Your task to perform on an android device: uninstall "Flipkart Online Shopping App" Image 0: 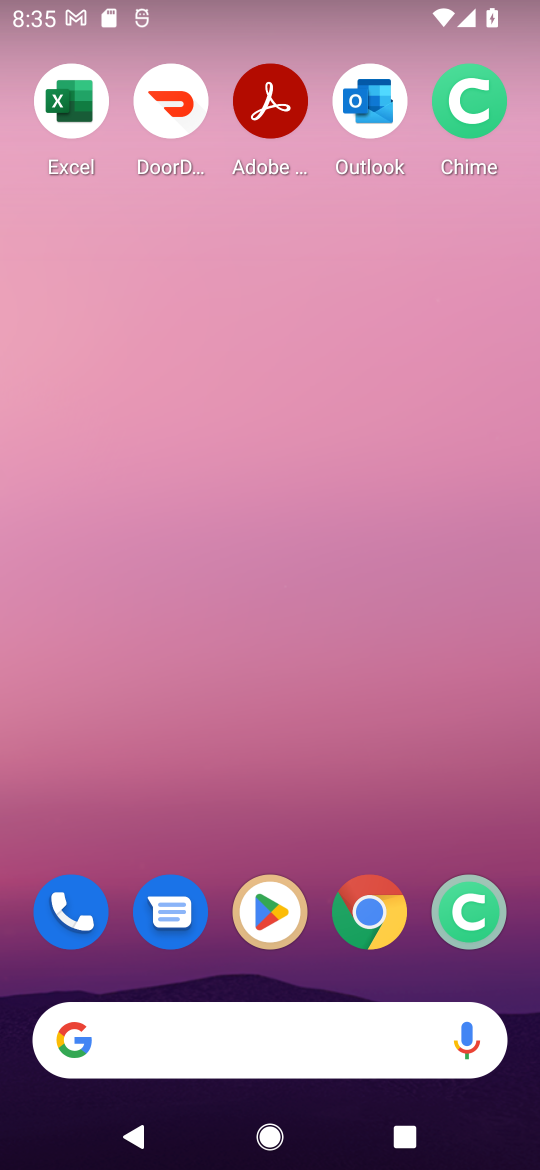
Step 0: drag from (173, 1044) to (251, 70)
Your task to perform on an android device: uninstall "Flipkart Online Shopping App" Image 1: 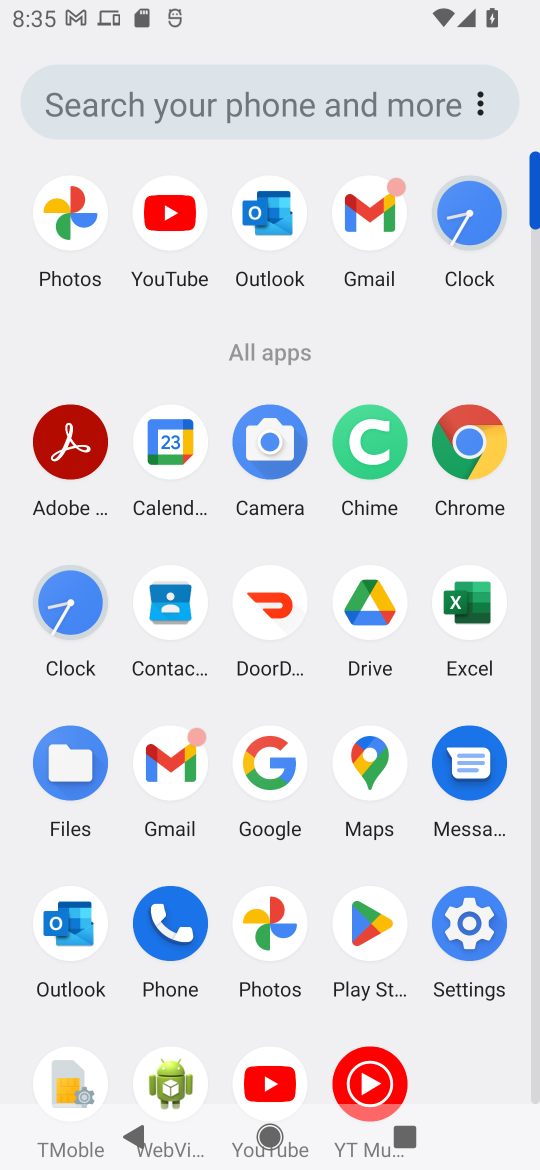
Step 1: click (366, 927)
Your task to perform on an android device: uninstall "Flipkart Online Shopping App" Image 2: 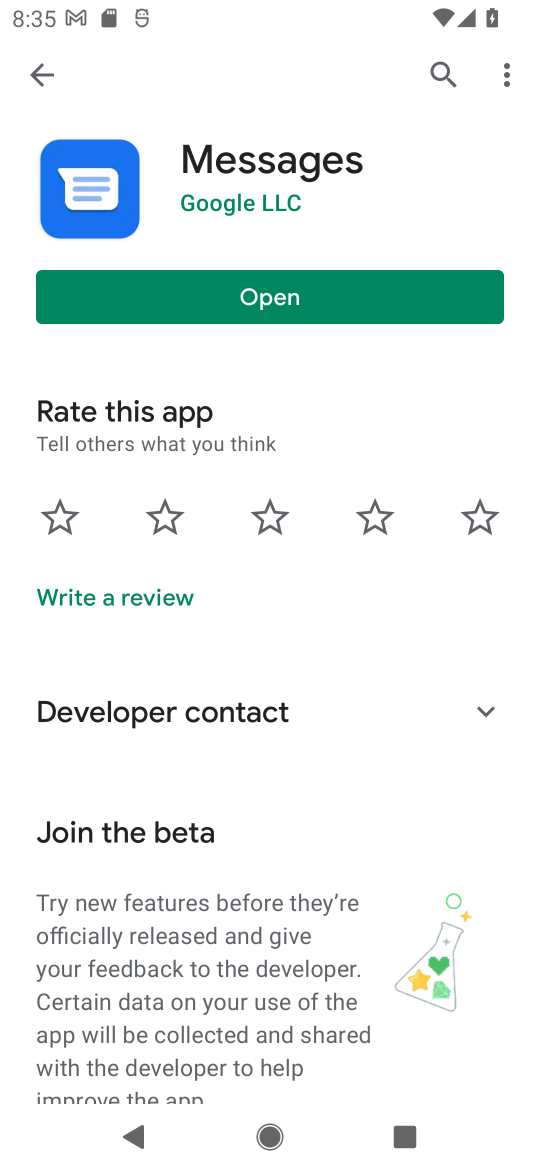
Step 2: press back button
Your task to perform on an android device: uninstall "Flipkart Online Shopping App" Image 3: 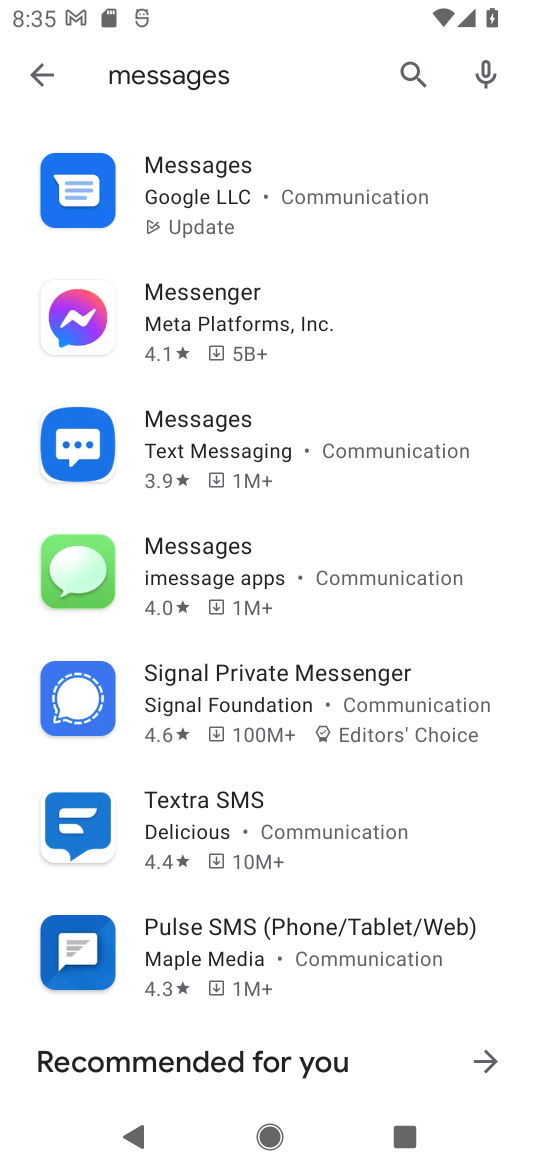
Step 3: press back button
Your task to perform on an android device: uninstall "Flipkart Online Shopping App" Image 4: 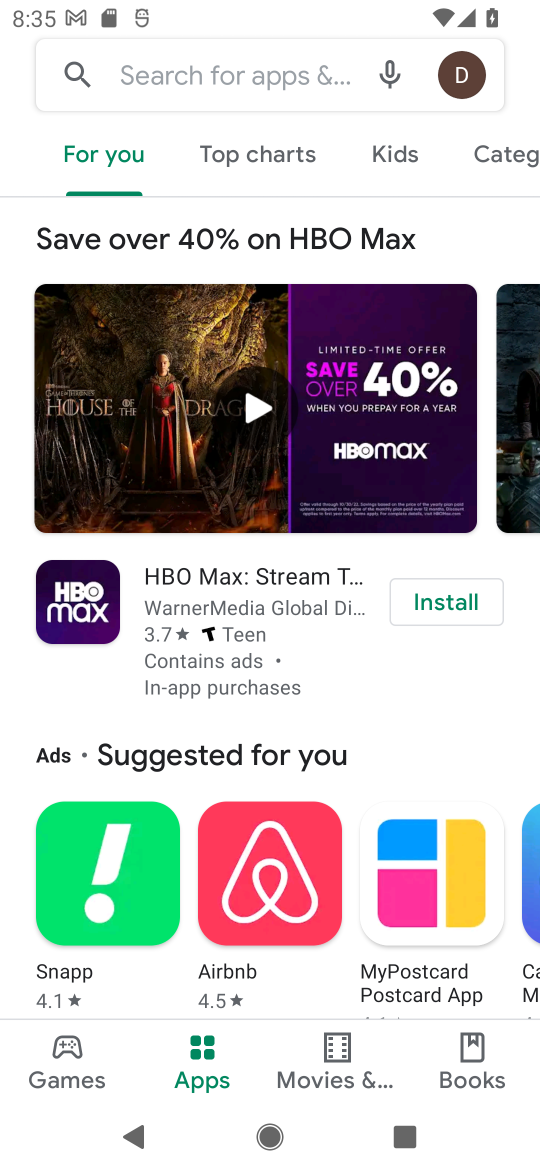
Step 4: click (224, 58)
Your task to perform on an android device: uninstall "Flipkart Online Shopping App" Image 5: 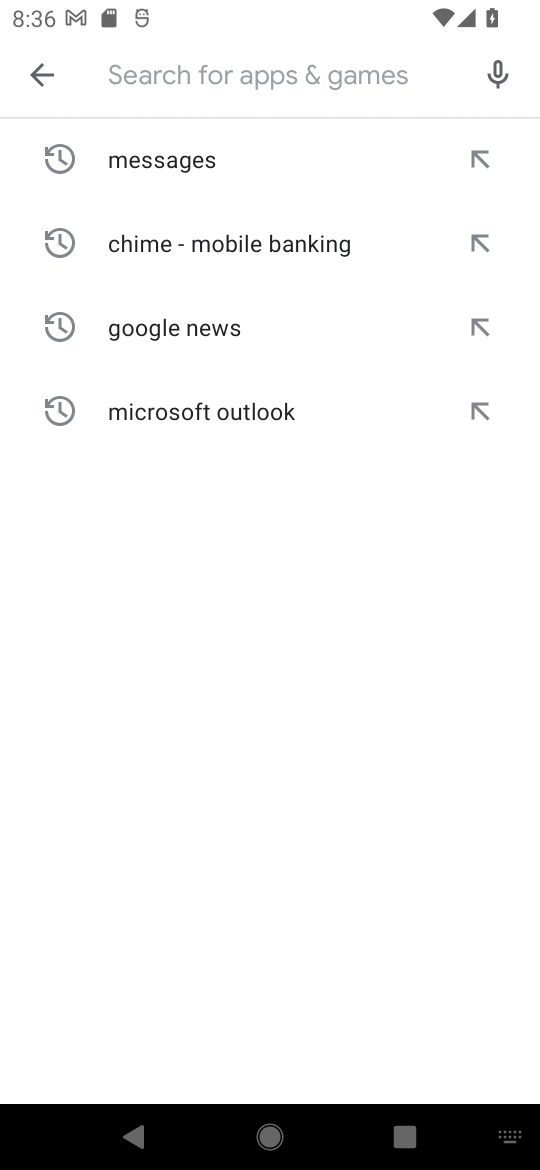
Step 5: type "Flipkart Online Shopping App"
Your task to perform on an android device: uninstall "Flipkart Online Shopping App" Image 6: 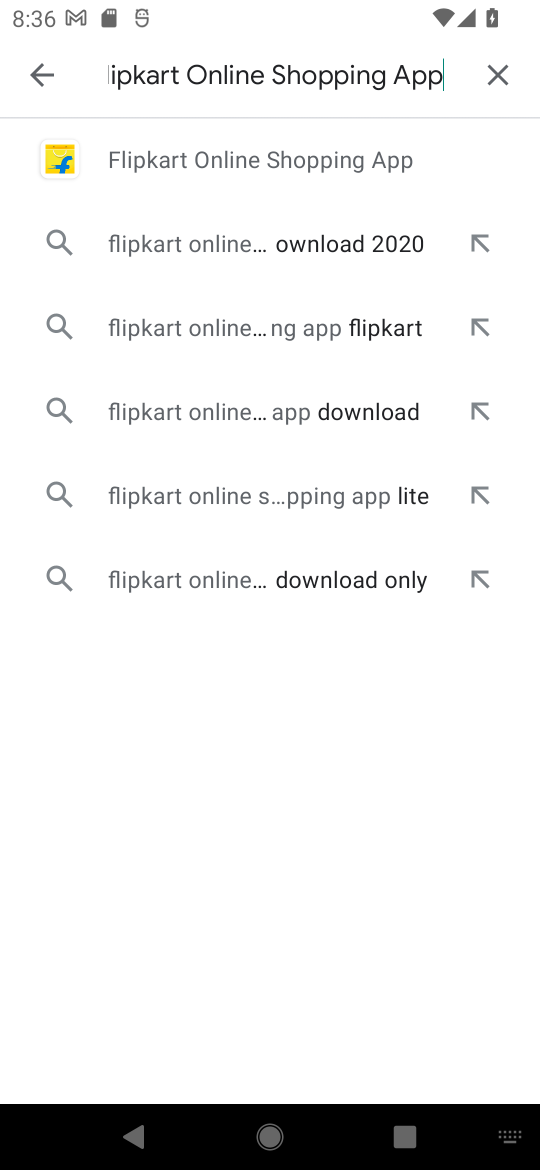
Step 6: click (197, 159)
Your task to perform on an android device: uninstall "Flipkart Online Shopping App" Image 7: 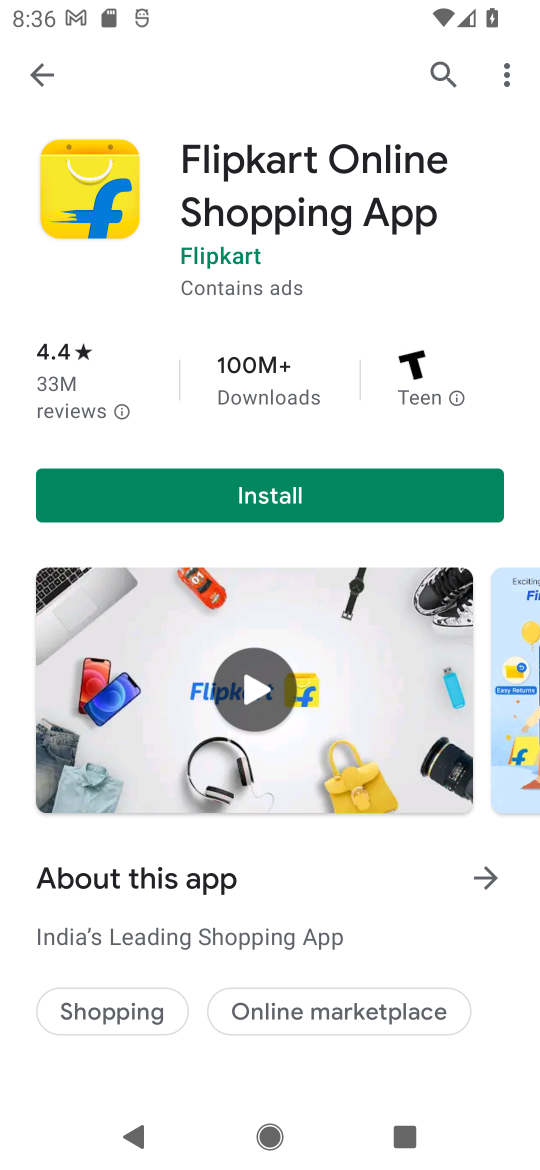
Step 7: task complete